Your task to perform on an android device: Go to Google maps Image 0: 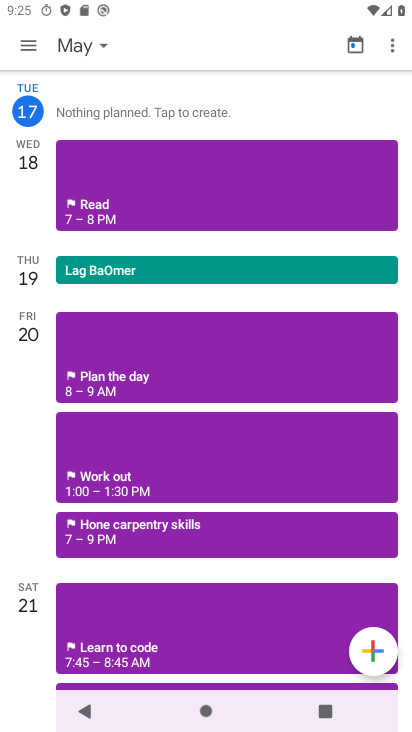
Step 0: drag from (237, 706) to (170, 252)
Your task to perform on an android device: Go to Google maps Image 1: 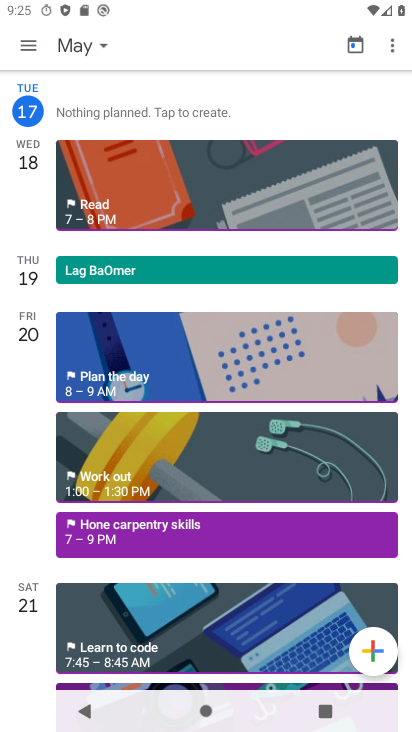
Step 1: press back button
Your task to perform on an android device: Go to Google maps Image 2: 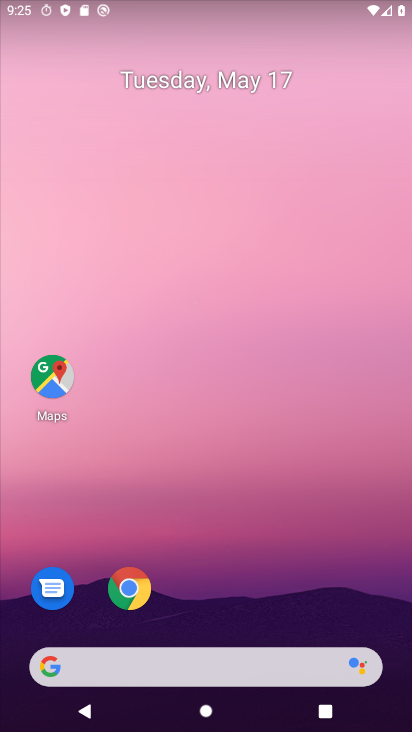
Step 2: drag from (280, 652) to (236, 43)
Your task to perform on an android device: Go to Google maps Image 3: 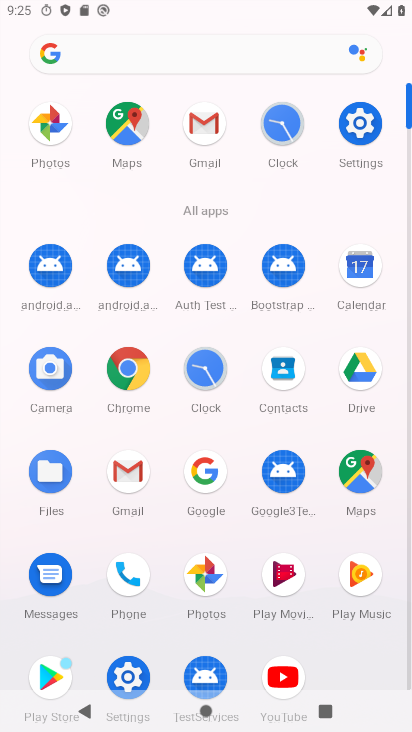
Step 3: click (358, 473)
Your task to perform on an android device: Go to Google maps Image 4: 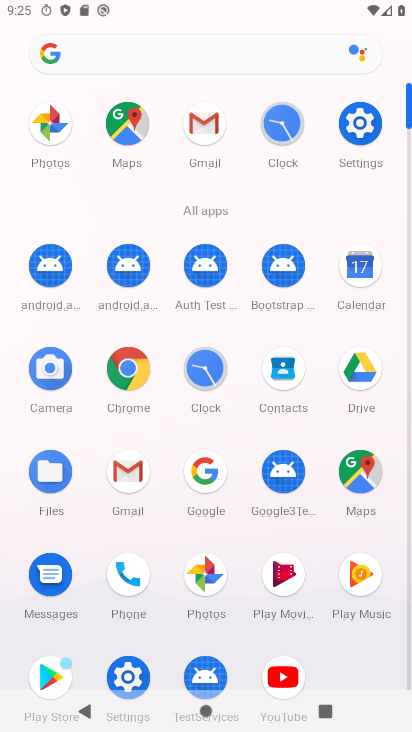
Step 4: click (359, 473)
Your task to perform on an android device: Go to Google maps Image 5: 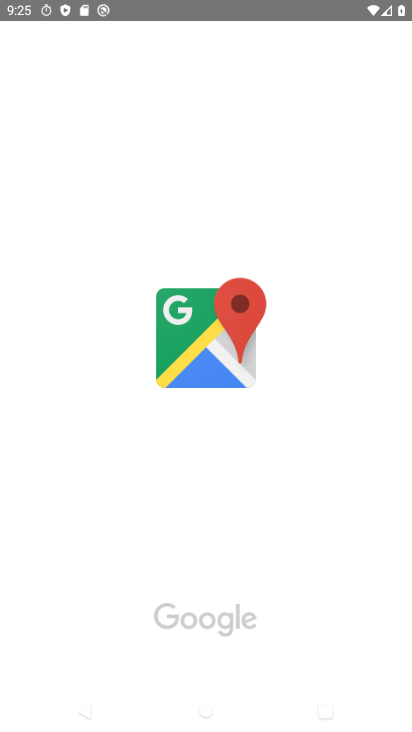
Step 5: click (353, 465)
Your task to perform on an android device: Go to Google maps Image 6: 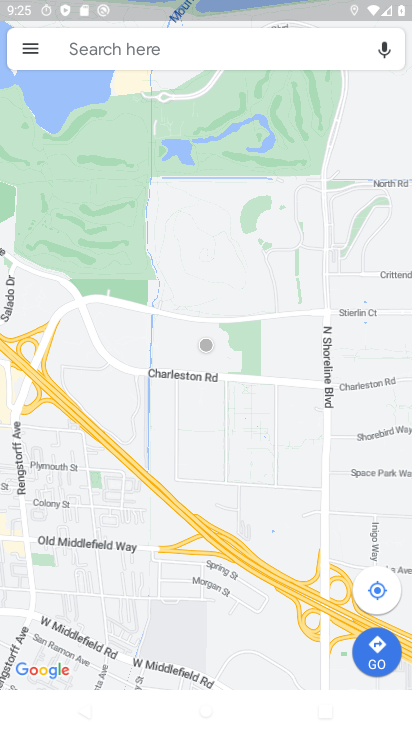
Step 6: task complete